Your task to perform on an android device: toggle data saver in the chrome app Image 0: 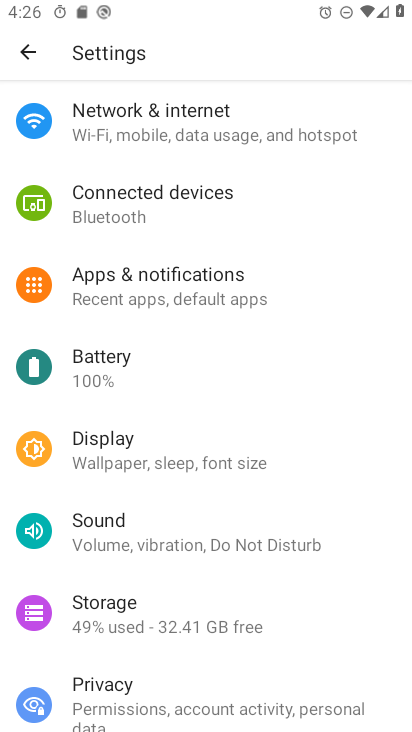
Step 0: press home button
Your task to perform on an android device: toggle data saver in the chrome app Image 1: 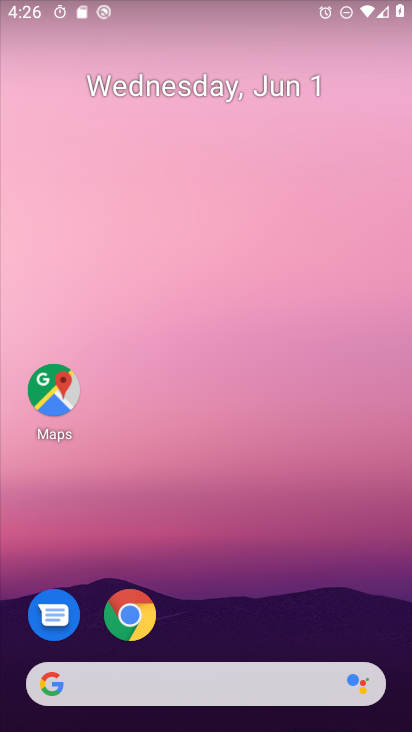
Step 1: drag from (224, 626) to (208, 52)
Your task to perform on an android device: toggle data saver in the chrome app Image 2: 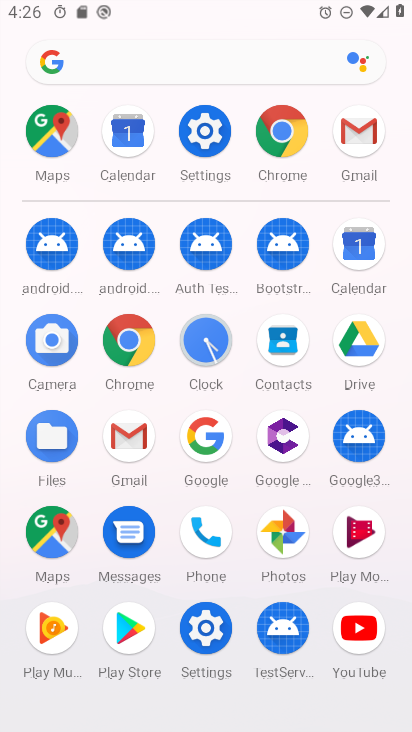
Step 2: click (274, 133)
Your task to perform on an android device: toggle data saver in the chrome app Image 3: 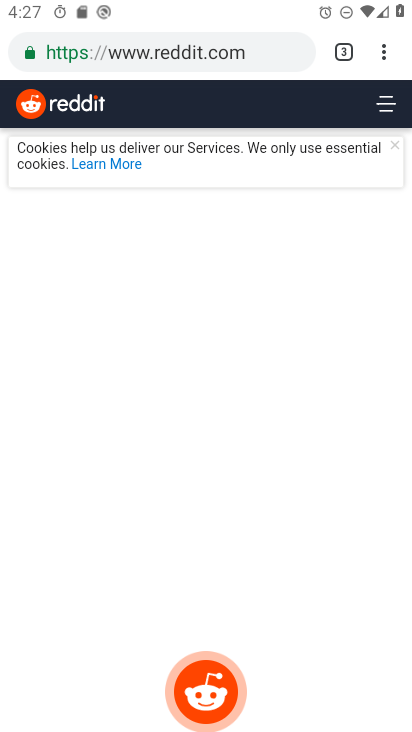
Step 3: click (384, 50)
Your task to perform on an android device: toggle data saver in the chrome app Image 4: 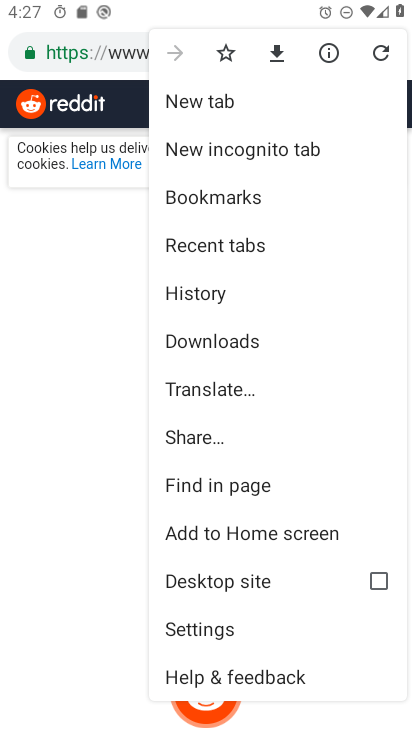
Step 4: click (227, 634)
Your task to perform on an android device: toggle data saver in the chrome app Image 5: 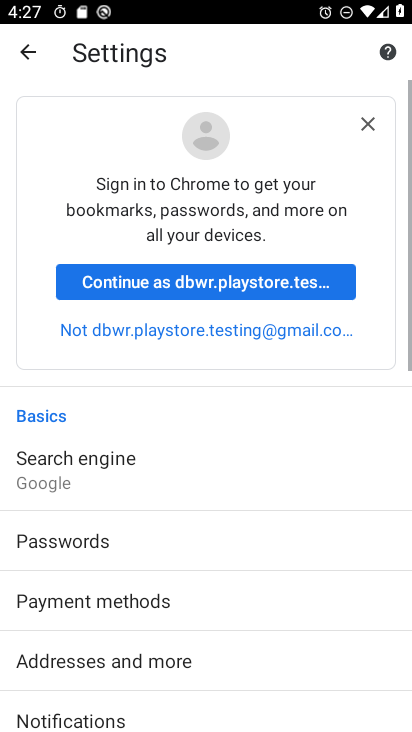
Step 5: drag from (286, 641) to (227, 204)
Your task to perform on an android device: toggle data saver in the chrome app Image 6: 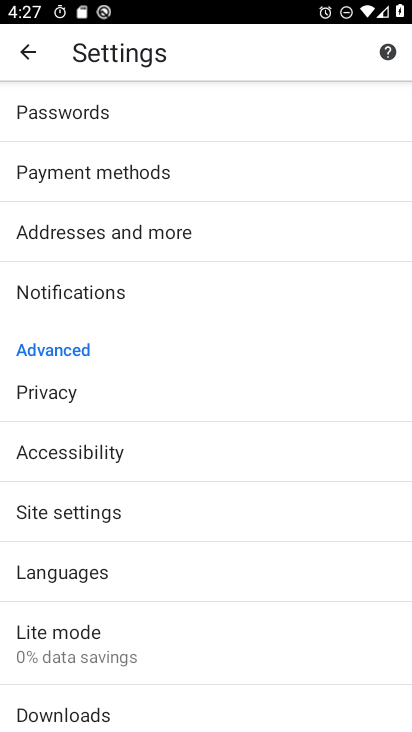
Step 6: click (108, 649)
Your task to perform on an android device: toggle data saver in the chrome app Image 7: 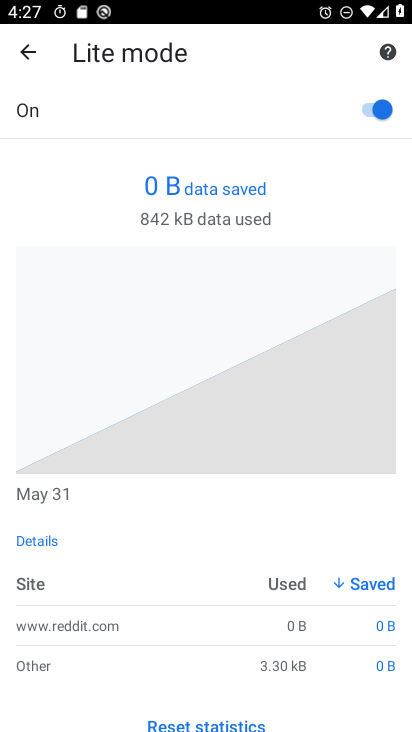
Step 7: click (379, 110)
Your task to perform on an android device: toggle data saver in the chrome app Image 8: 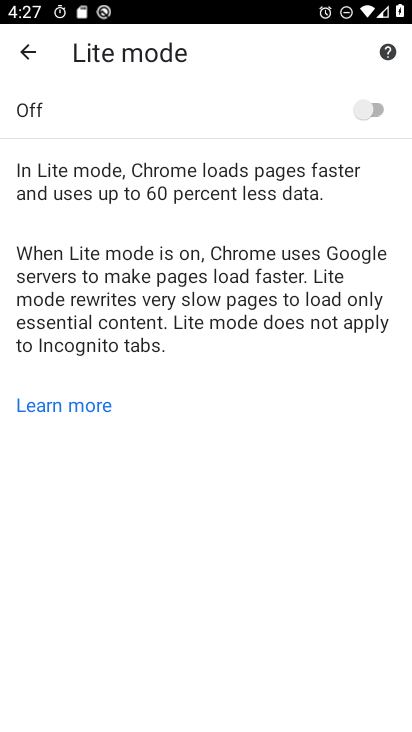
Step 8: task complete